Your task to perform on an android device: Go to network settings Image 0: 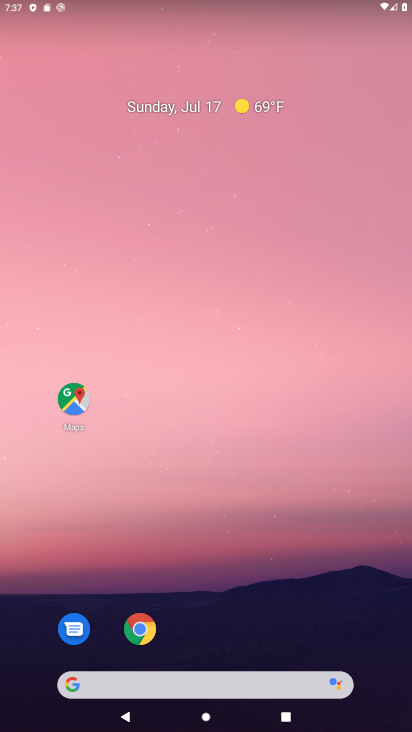
Step 0: drag from (220, 666) to (194, 128)
Your task to perform on an android device: Go to network settings Image 1: 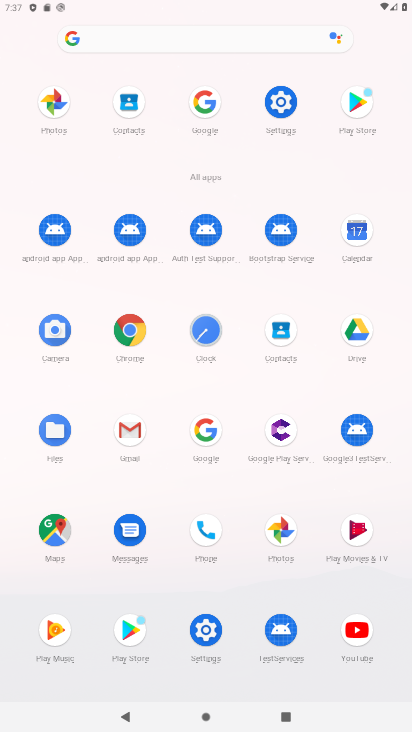
Step 1: click (282, 98)
Your task to perform on an android device: Go to network settings Image 2: 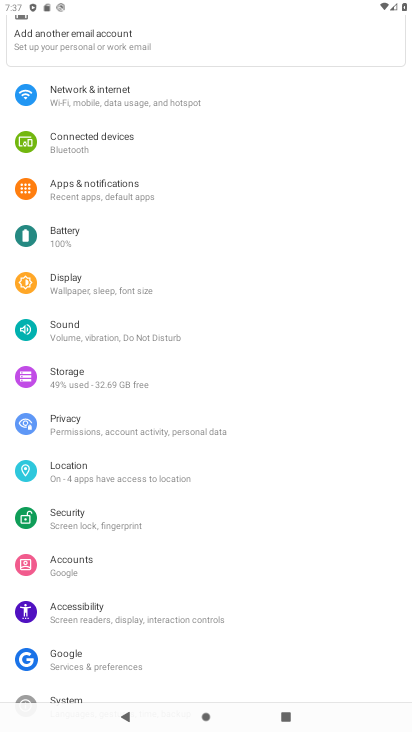
Step 2: click (102, 97)
Your task to perform on an android device: Go to network settings Image 3: 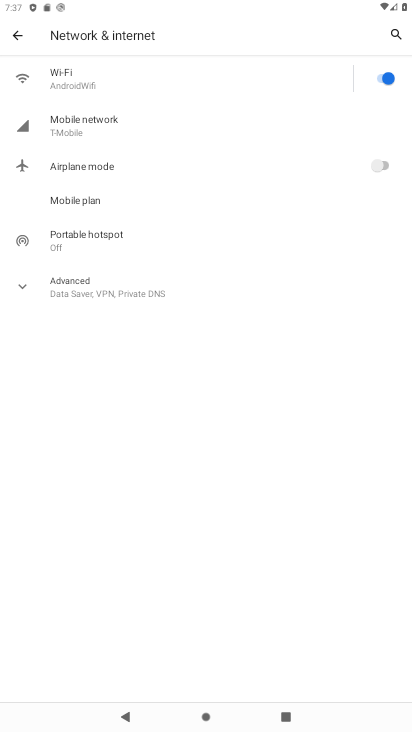
Step 3: click (109, 122)
Your task to perform on an android device: Go to network settings Image 4: 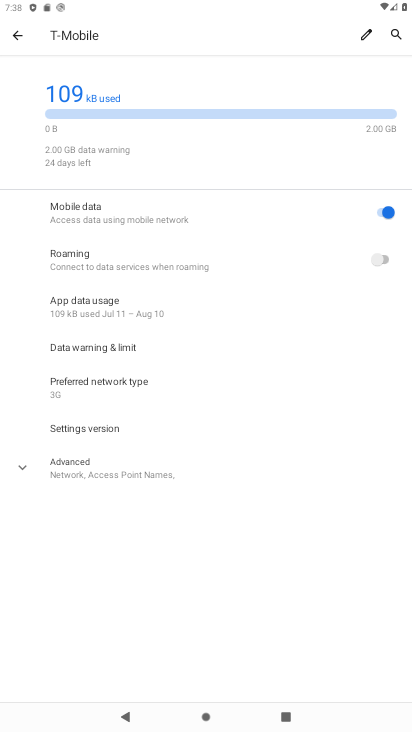
Step 4: task complete